Your task to perform on an android device: Search for seafood restaurants on Google Maps Image 0: 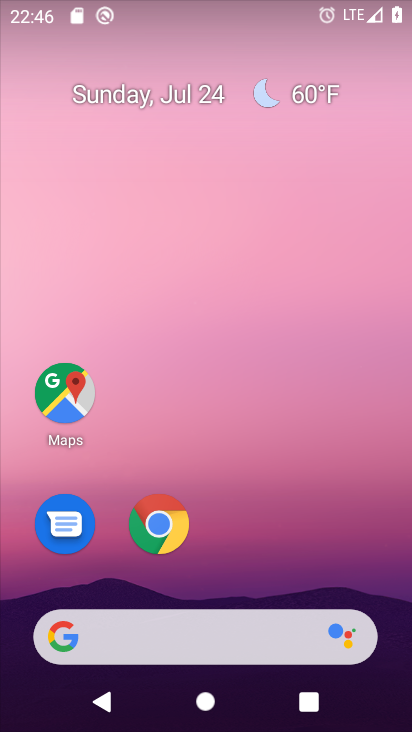
Step 0: click (214, 648)
Your task to perform on an android device: Search for seafood restaurants on Google Maps Image 1: 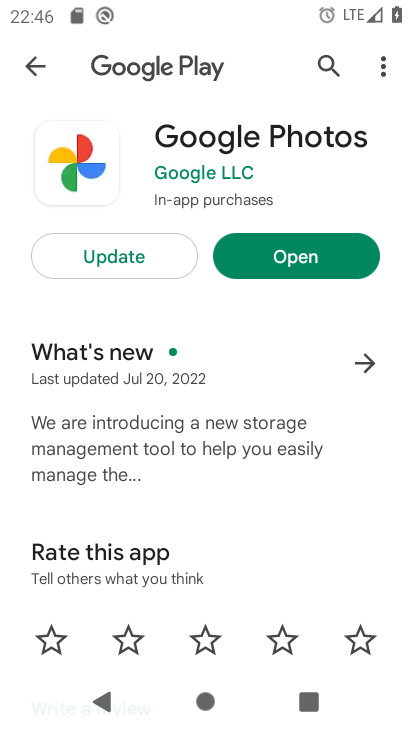
Step 1: click (34, 60)
Your task to perform on an android device: Search for seafood restaurants on Google Maps Image 2: 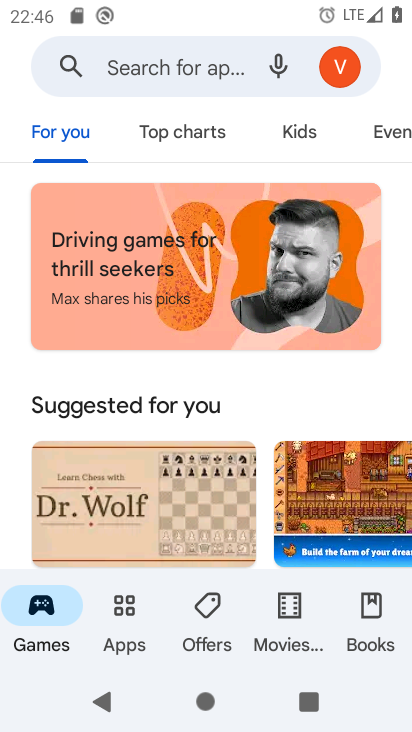
Step 2: press home button
Your task to perform on an android device: Search for seafood restaurants on Google Maps Image 3: 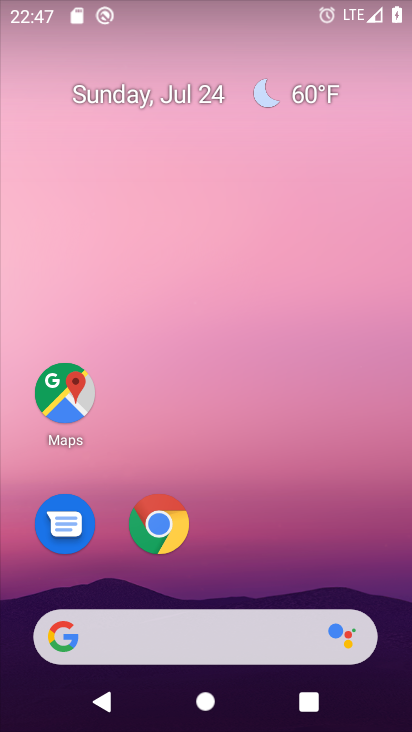
Step 3: click (62, 383)
Your task to perform on an android device: Search for seafood restaurants on Google Maps Image 4: 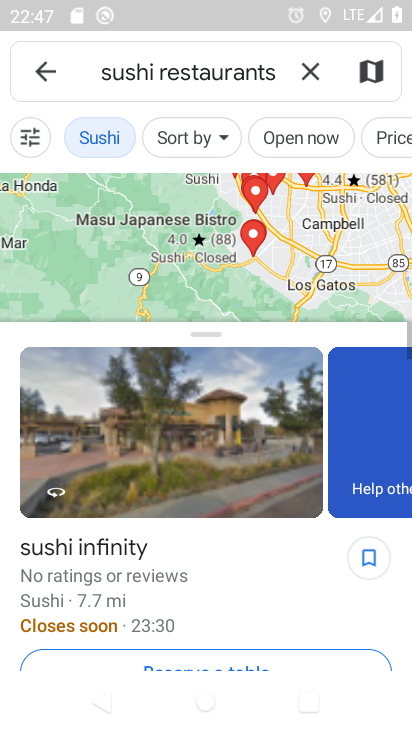
Step 4: click (305, 65)
Your task to perform on an android device: Search for seafood restaurants on Google Maps Image 5: 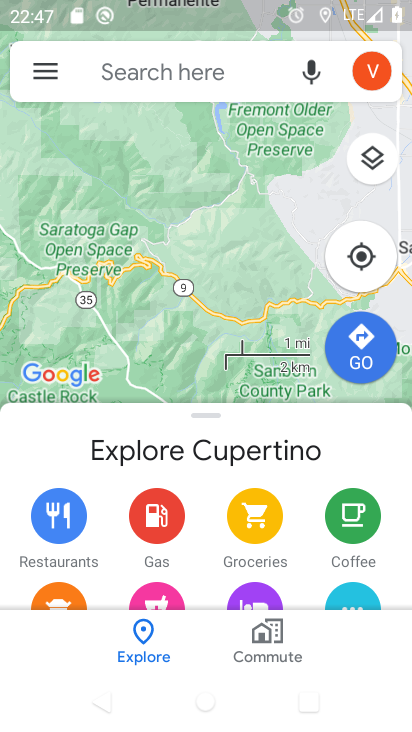
Step 5: click (248, 77)
Your task to perform on an android device: Search for seafood restaurants on Google Maps Image 6: 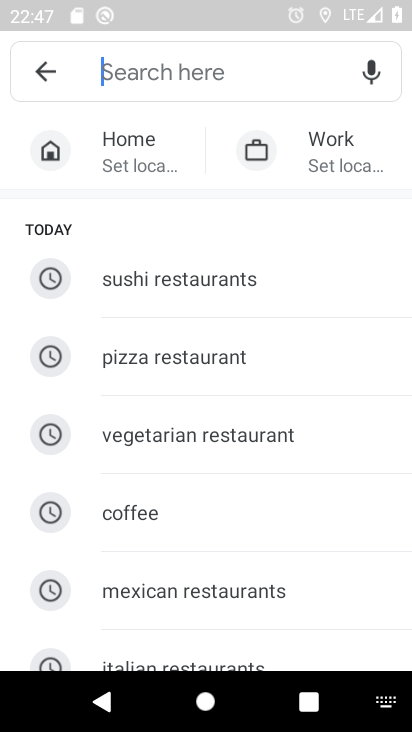
Step 6: drag from (195, 510) to (202, 465)
Your task to perform on an android device: Search for seafood restaurants on Google Maps Image 7: 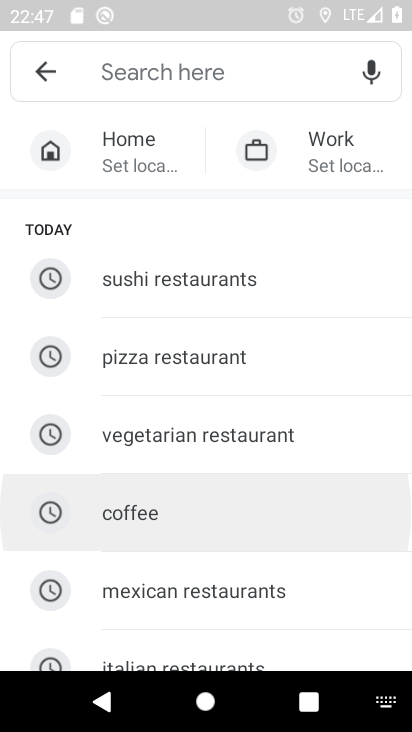
Step 7: drag from (214, 439) to (270, 198)
Your task to perform on an android device: Search for seafood restaurants on Google Maps Image 8: 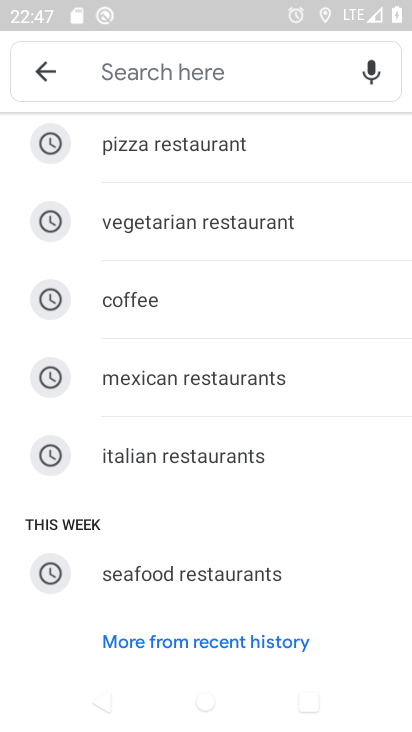
Step 8: click (206, 573)
Your task to perform on an android device: Search for seafood restaurants on Google Maps Image 9: 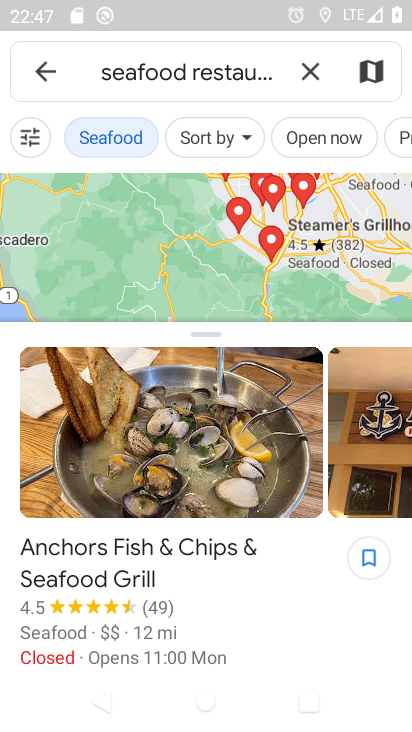
Step 9: task complete